Your task to perform on an android device: change text size in settings app Image 0: 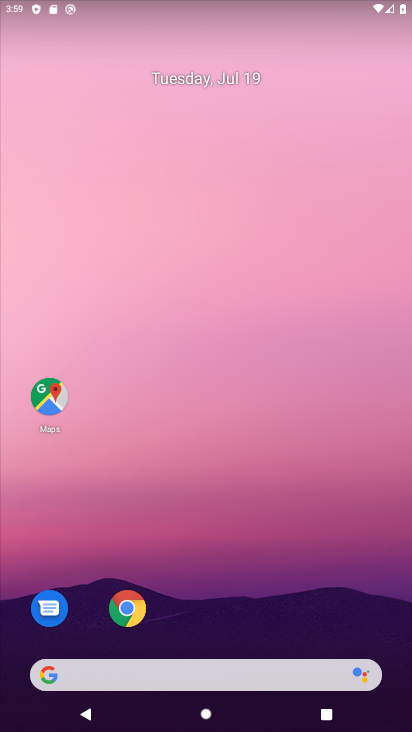
Step 0: drag from (184, 615) to (174, 223)
Your task to perform on an android device: change text size in settings app Image 1: 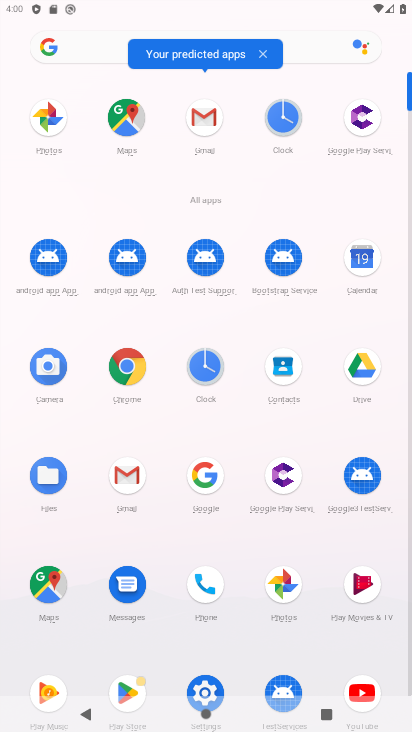
Step 1: click (212, 690)
Your task to perform on an android device: change text size in settings app Image 2: 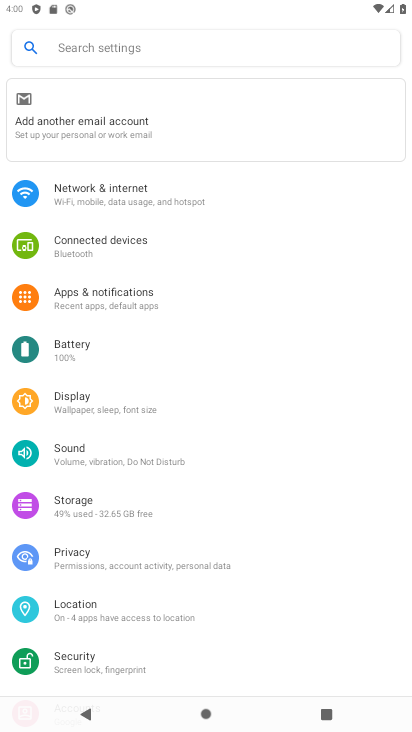
Step 2: drag from (107, 533) to (182, 231)
Your task to perform on an android device: change text size in settings app Image 3: 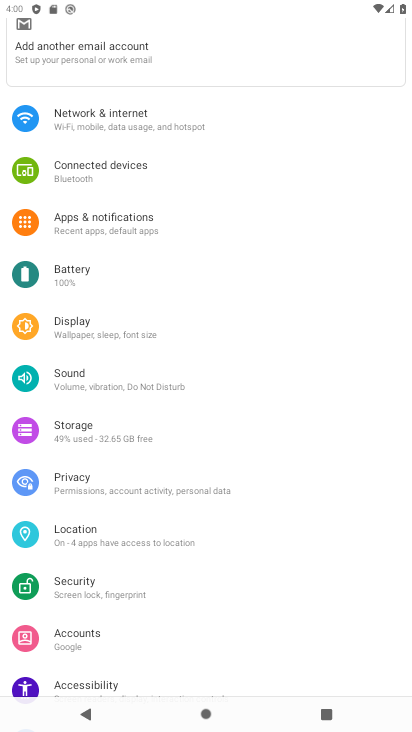
Step 3: click (96, 316)
Your task to perform on an android device: change text size in settings app Image 4: 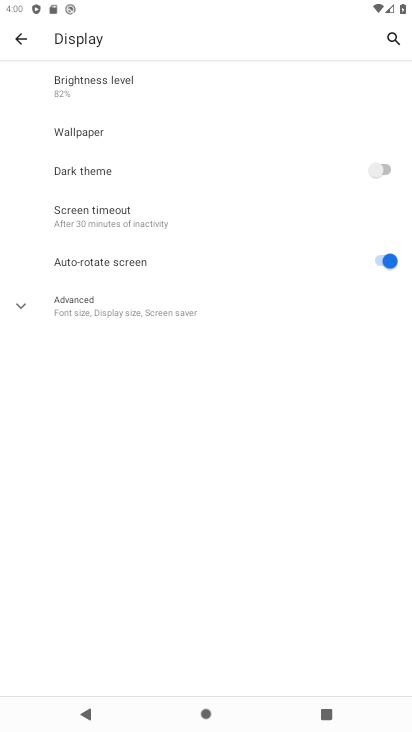
Step 4: click (96, 316)
Your task to perform on an android device: change text size in settings app Image 5: 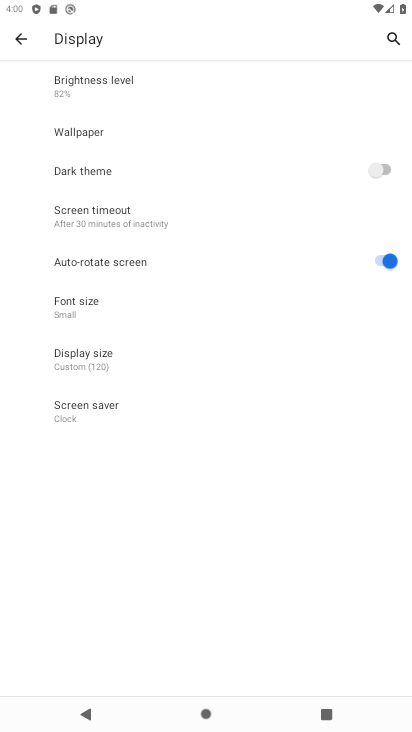
Step 5: click (83, 299)
Your task to perform on an android device: change text size in settings app Image 6: 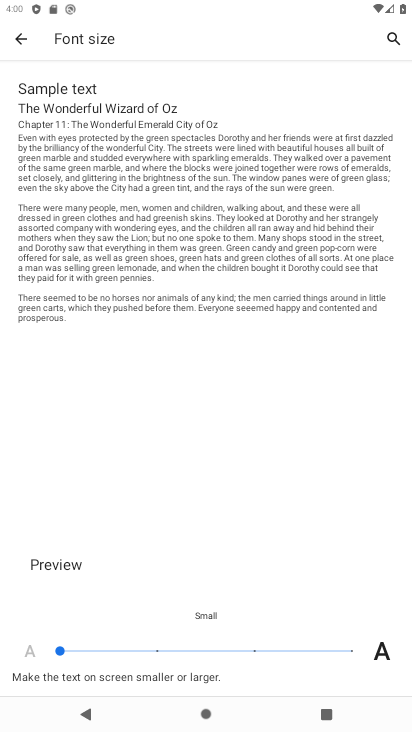
Step 6: click (152, 647)
Your task to perform on an android device: change text size in settings app Image 7: 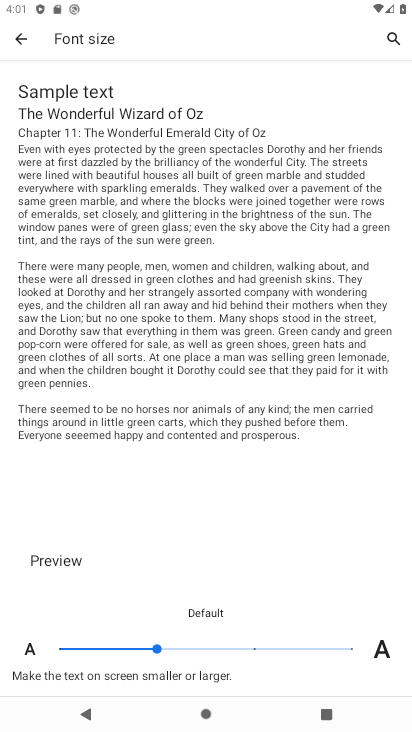
Step 7: task complete